Your task to perform on an android device: move a message to another label in the gmail app Image 0: 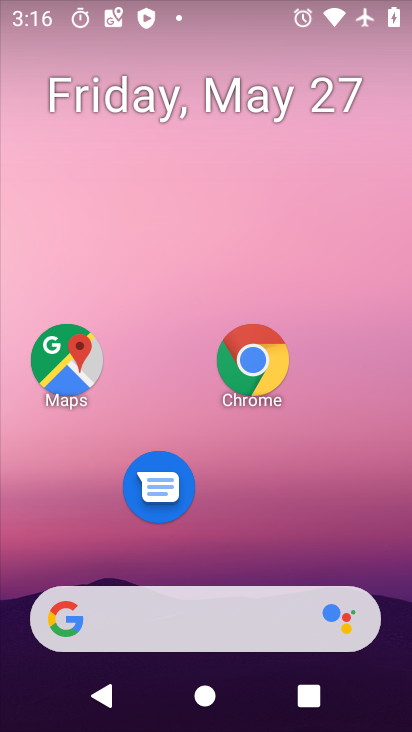
Step 0: drag from (287, 532) to (289, 146)
Your task to perform on an android device: move a message to another label in the gmail app Image 1: 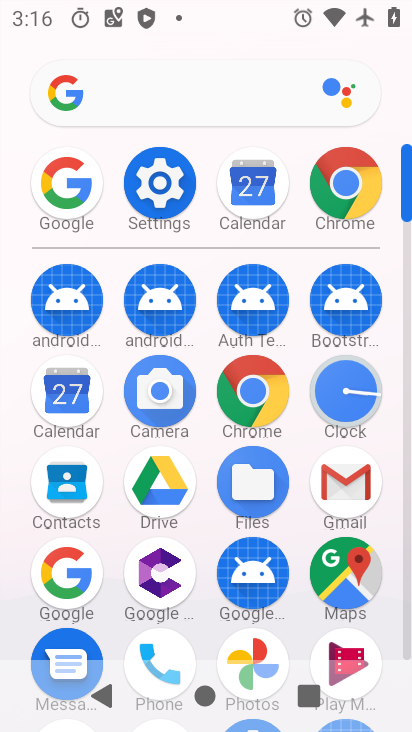
Step 1: click (334, 490)
Your task to perform on an android device: move a message to another label in the gmail app Image 2: 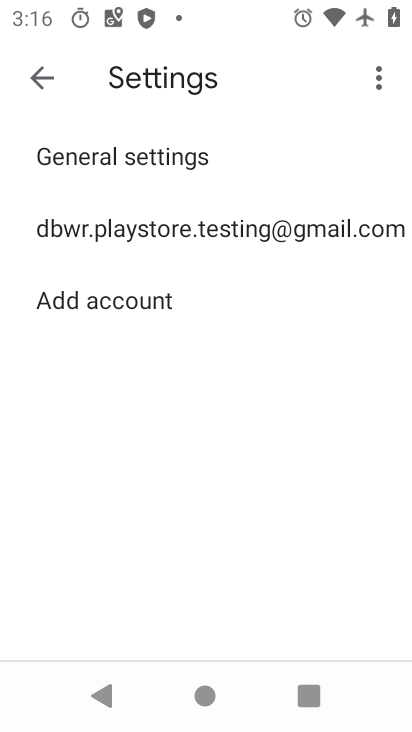
Step 2: task complete